Your task to perform on an android device: Check the latest toasters on Target. Image 0: 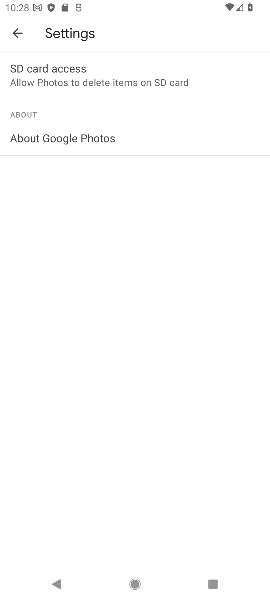
Step 0: click (106, 535)
Your task to perform on an android device: Check the latest toasters on Target. Image 1: 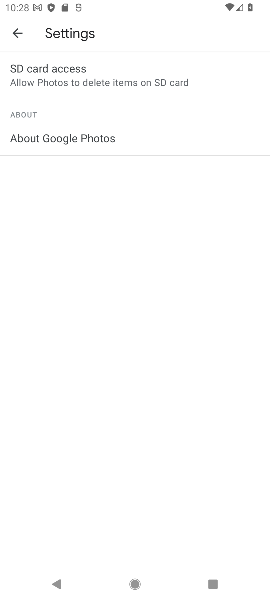
Step 1: click (15, 30)
Your task to perform on an android device: Check the latest toasters on Target. Image 2: 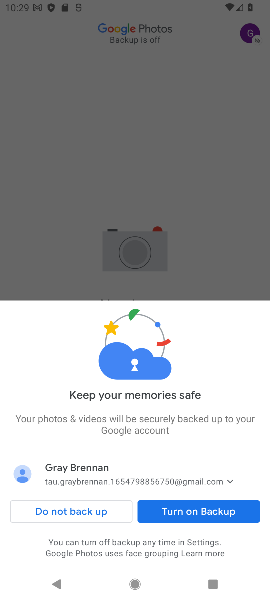
Step 2: press home button
Your task to perform on an android device: Check the latest toasters on Target. Image 3: 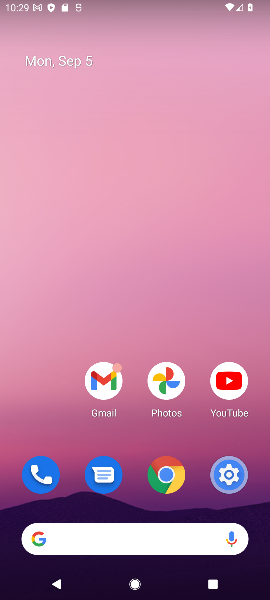
Step 3: click (123, 530)
Your task to perform on an android device: Check the latest toasters on Target. Image 4: 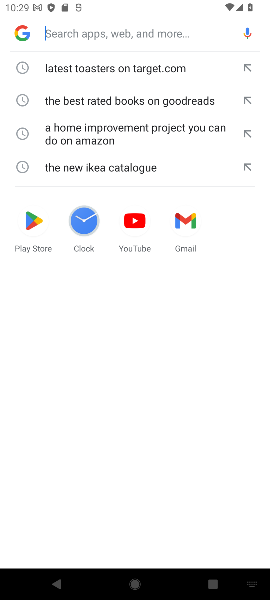
Step 4: type "the latest toasters on Target"
Your task to perform on an android device: Check the latest toasters on Target. Image 5: 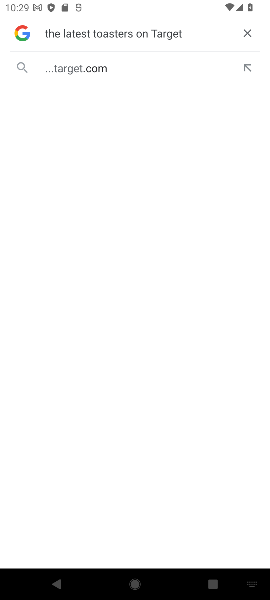
Step 5: click (96, 66)
Your task to perform on an android device: Check the latest toasters on Target. Image 6: 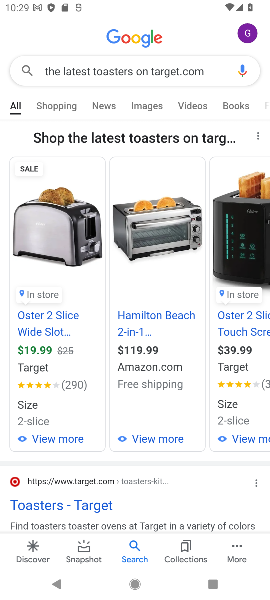
Step 6: task complete